Your task to perform on an android device: Set the phone to "Do not disturb". Image 0: 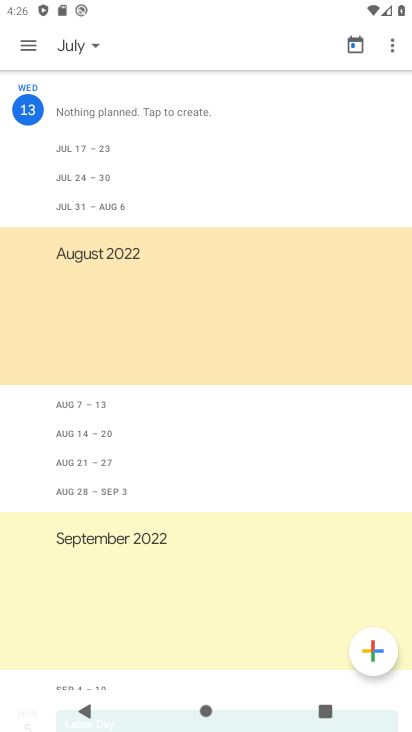
Step 0: press back button
Your task to perform on an android device: Set the phone to "Do not disturb". Image 1: 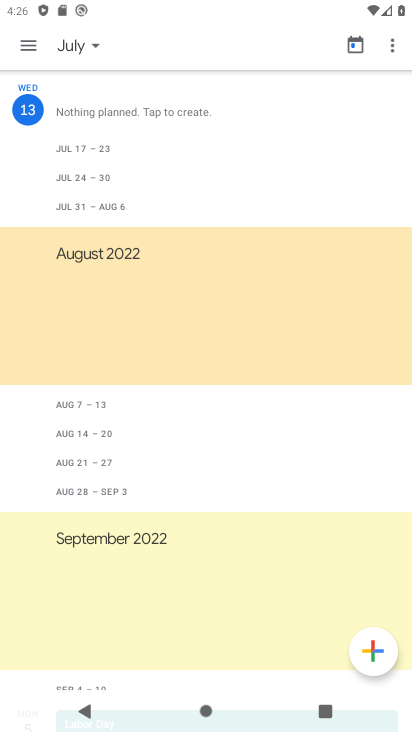
Step 1: press back button
Your task to perform on an android device: Set the phone to "Do not disturb". Image 2: 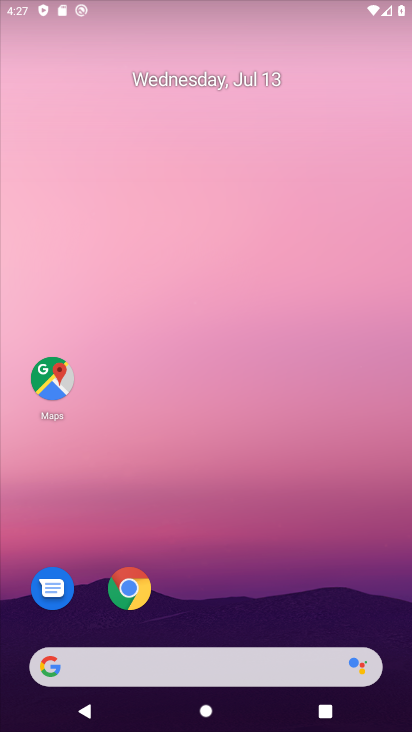
Step 2: press back button
Your task to perform on an android device: Set the phone to "Do not disturb". Image 3: 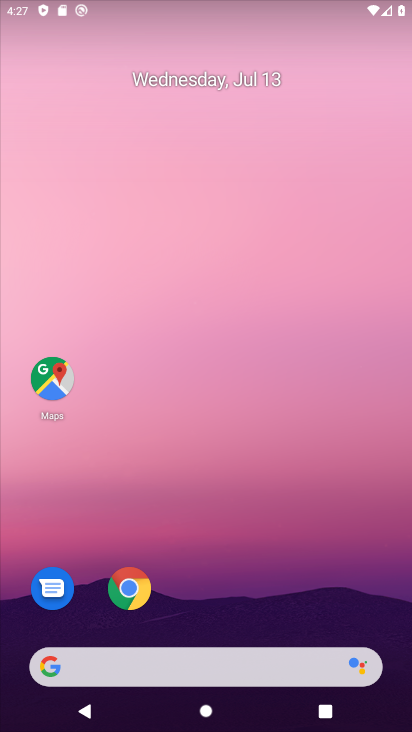
Step 3: press home button
Your task to perform on an android device: Set the phone to "Do not disturb". Image 4: 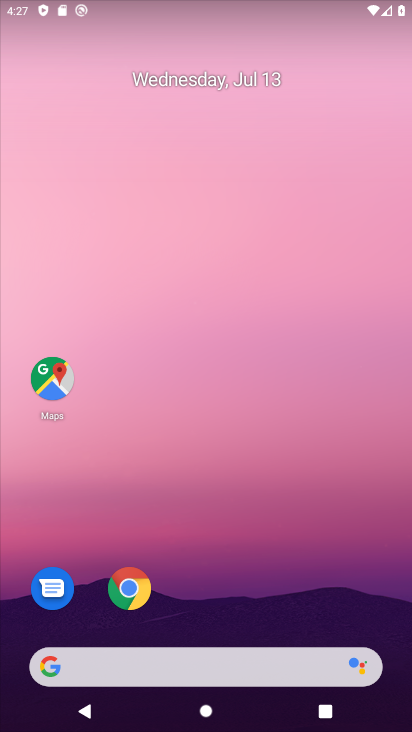
Step 4: drag from (243, 599) to (188, 252)
Your task to perform on an android device: Set the phone to "Do not disturb". Image 5: 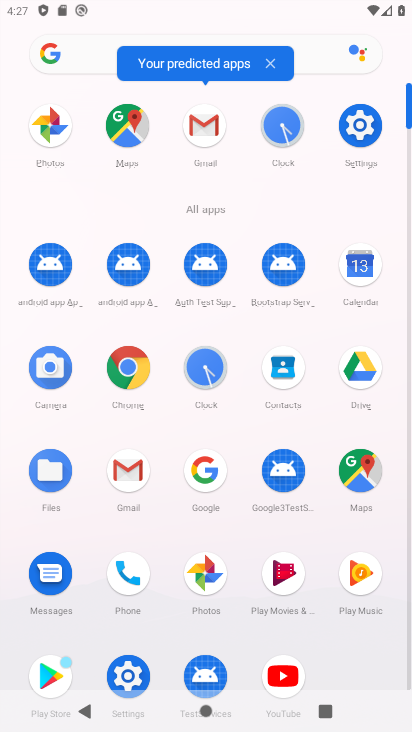
Step 5: click (132, 670)
Your task to perform on an android device: Set the phone to "Do not disturb". Image 6: 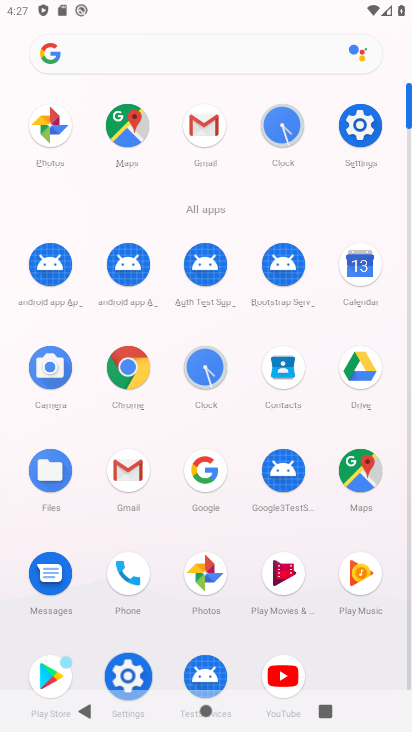
Step 6: click (132, 670)
Your task to perform on an android device: Set the phone to "Do not disturb". Image 7: 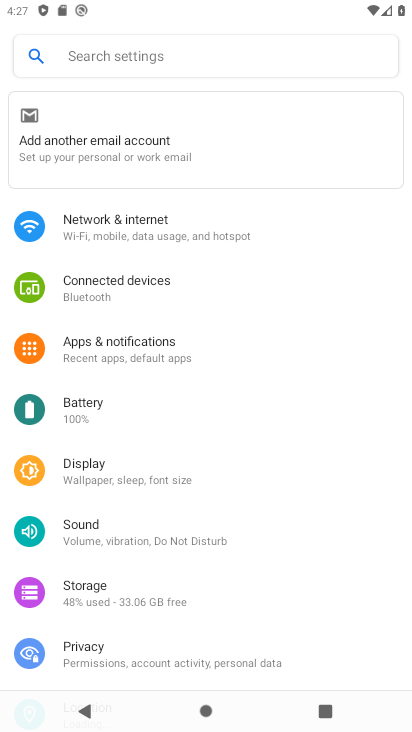
Step 7: click (99, 541)
Your task to perform on an android device: Set the phone to "Do not disturb". Image 8: 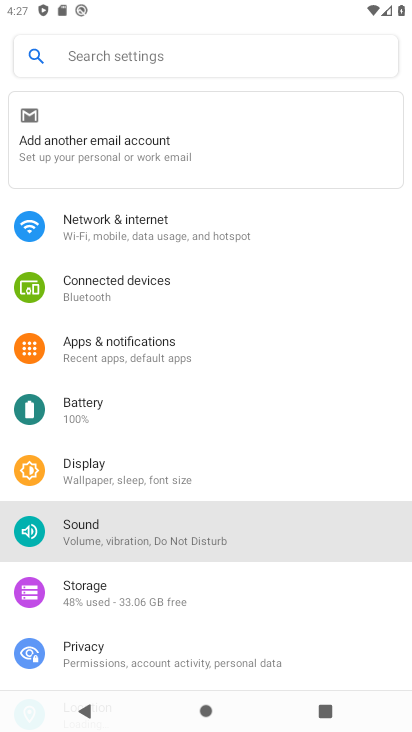
Step 8: click (99, 541)
Your task to perform on an android device: Set the phone to "Do not disturb". Image 9: 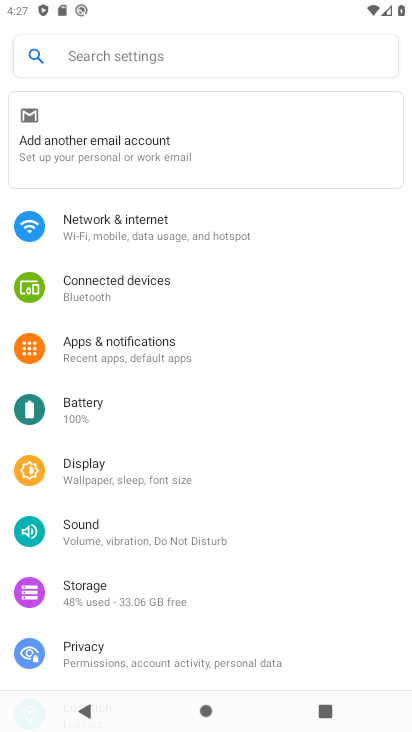
Step 9: click (99, 542)
Your task to perform on an android device: Set the phone to "Do not disturb". Image 10: 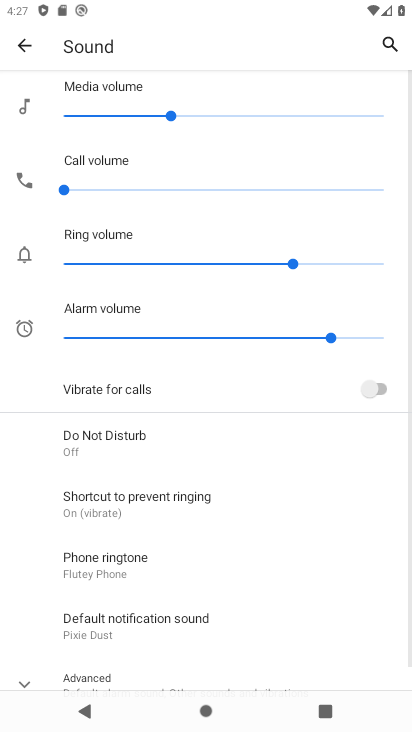
Step 10: click (92, 447)
Your task to perform on an android device: Set the phone to "Do not disturb". Image 11: 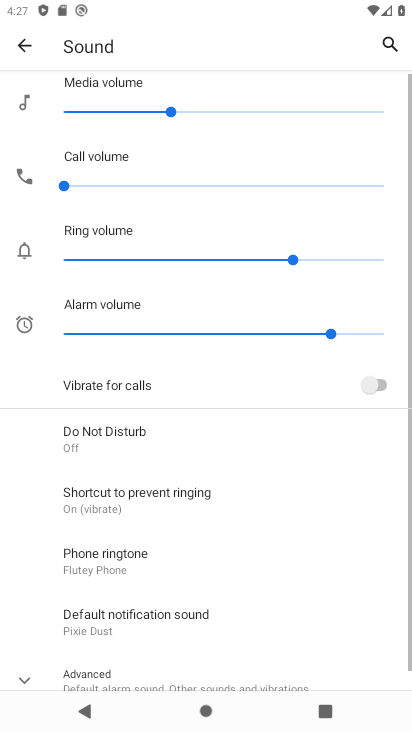
Step 11: click (91, 435)
Your task to perform on an android device: Set the phone to "Do not disturb". Image 12: 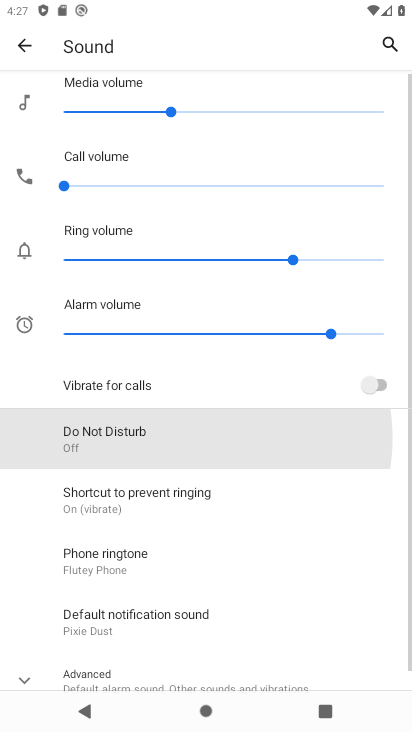
Step 12: click (91, 435)
Your task to perform on an android device: Set the phone to "Do not disturb". Image 13: 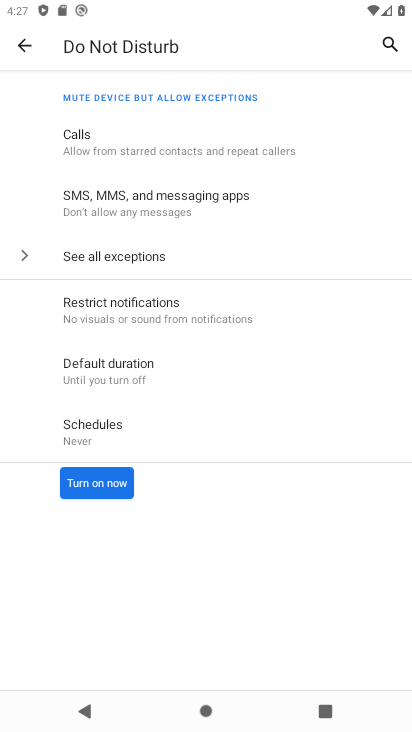
Step 13: click (88, 477)
Your task to perform on an android device: Set the phone to "Do not disturb". Image 14: 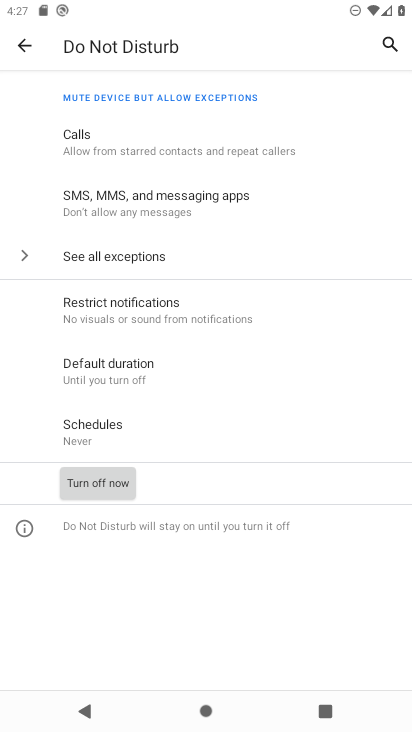
Step 14: task complete